Your task to perform on an android device: turn on improve location accuracy Image 0: 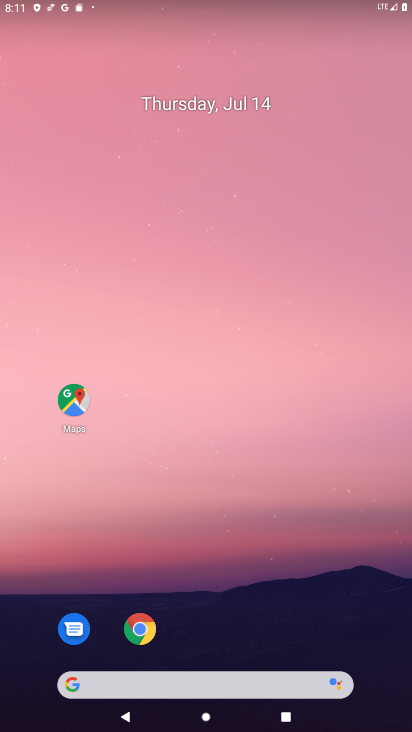
Step 0: task complete